Your task to perform on an android device: Turn on the flashlight Image 0: 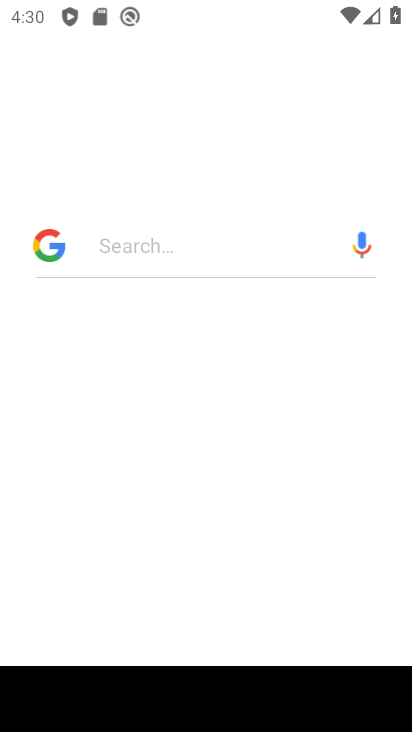
Step 0: drag from (188, 586) to (182, 336)
Your task to perform on an android device: Turn on the flashlight Image 1: 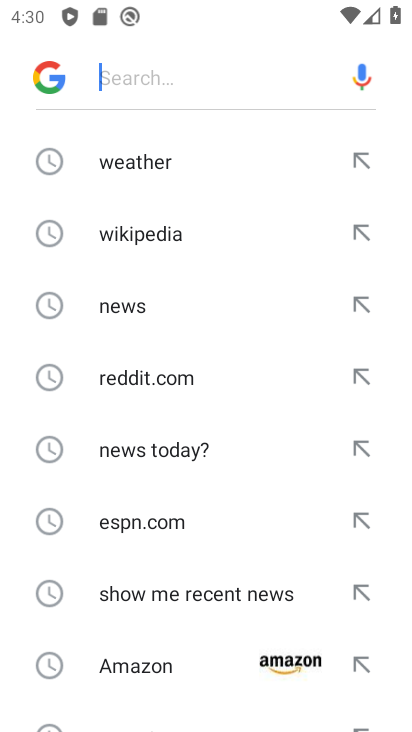
Step 1: task complete